Your task to perform on an android device: remove spam from my inbox in the gmail app Image 0: 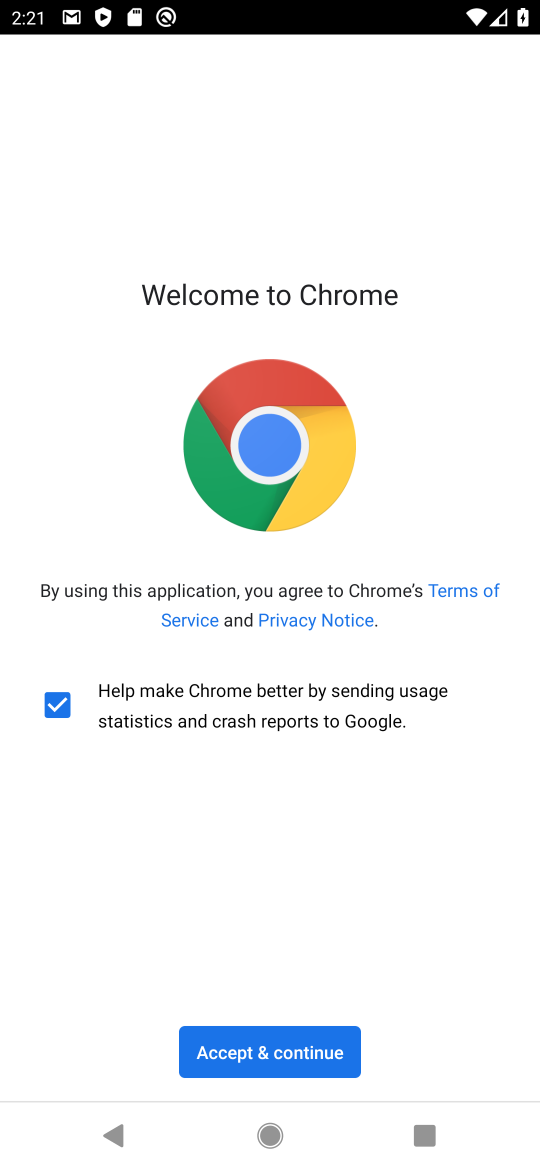
Step 0: press home button
Your task to perform on an android device: remove spam from my inbox in the gmail app Image 1: 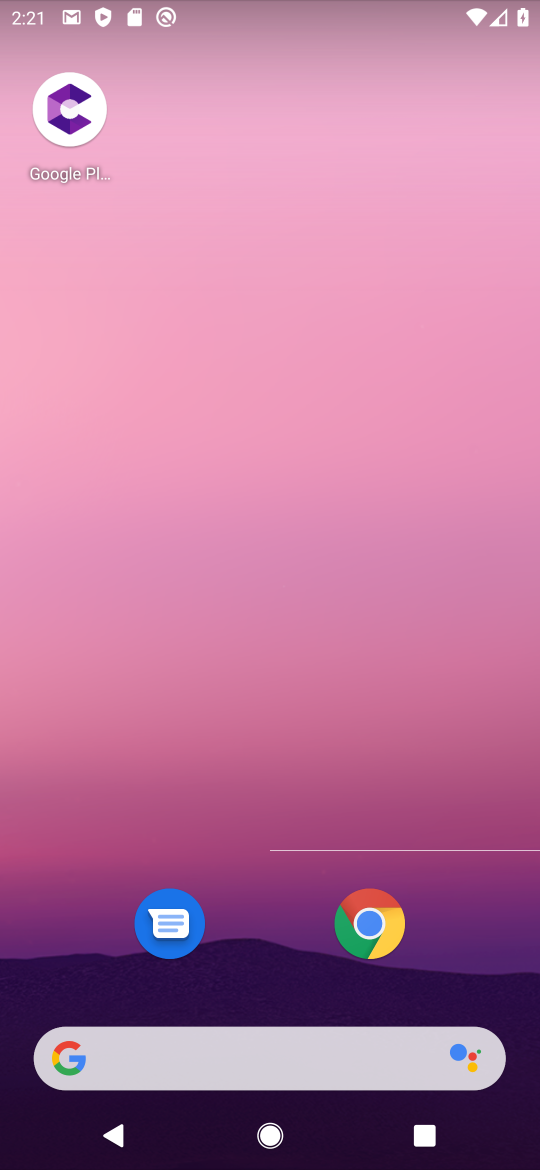
Step 1: drag from (196, 896) to (152, 160)
Your task to perform on an android device: remove spam from my inbox in the gmail app Image 2: 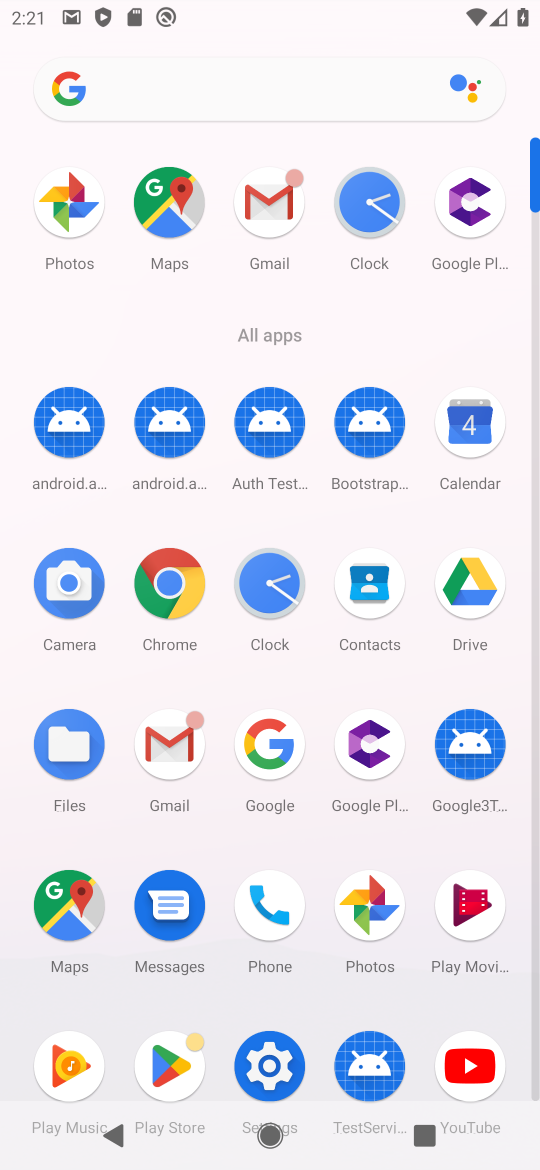
Step 2: click (285, 195)
Your task to perform on an android device: remove spam from my inbox in the gmail app Image 3: 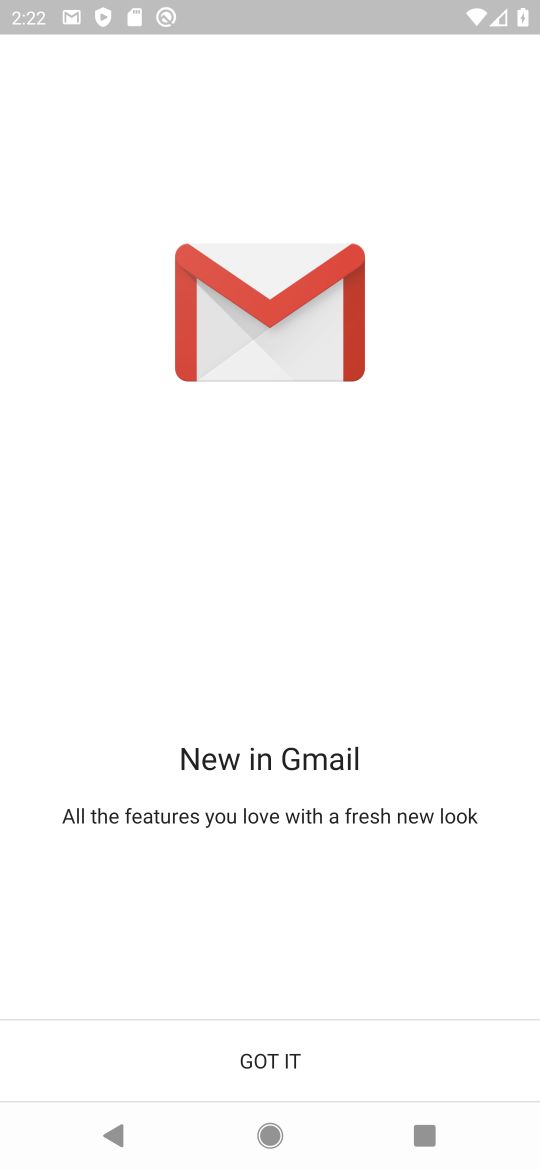
Step 3: click (202, 1092)
Your task to perform on an android device: remove spam from my inbox in the gmail app Image 4: 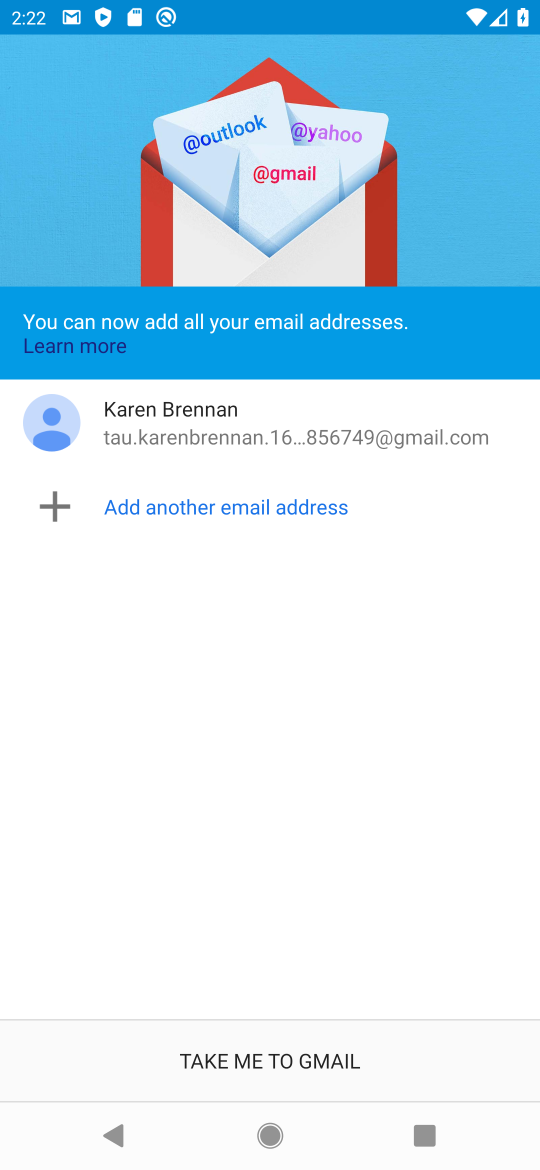
Step 4: click (289, 1054)
Your task to perform on an android device: remove spam from my inbox in the gmail app Image 5: 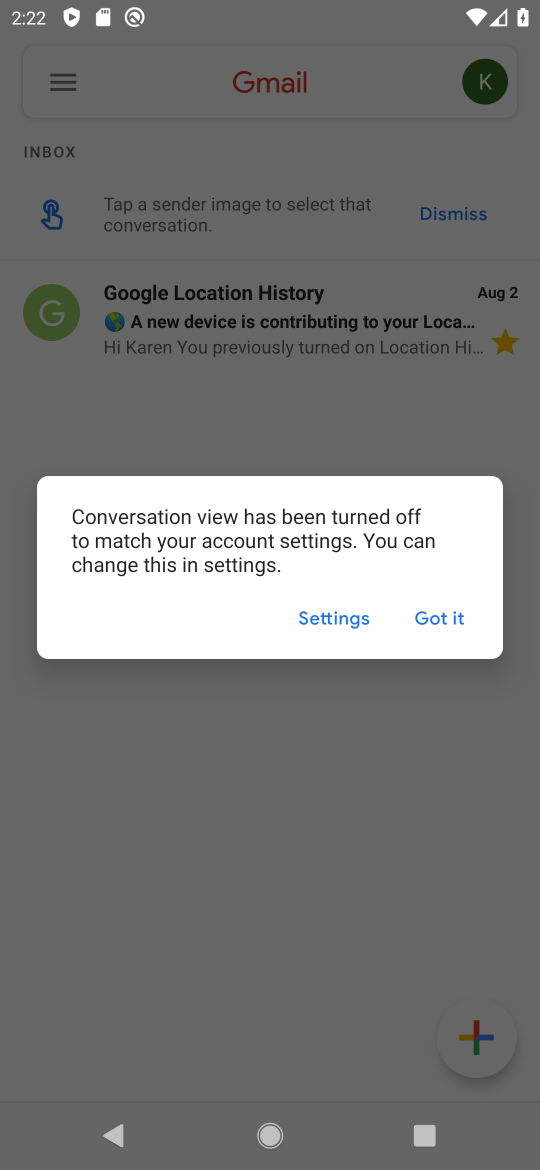
Step 5: click (450, 611)
Your task to perform on an android device: remove spam from my inbox in the gmail app Image 6: 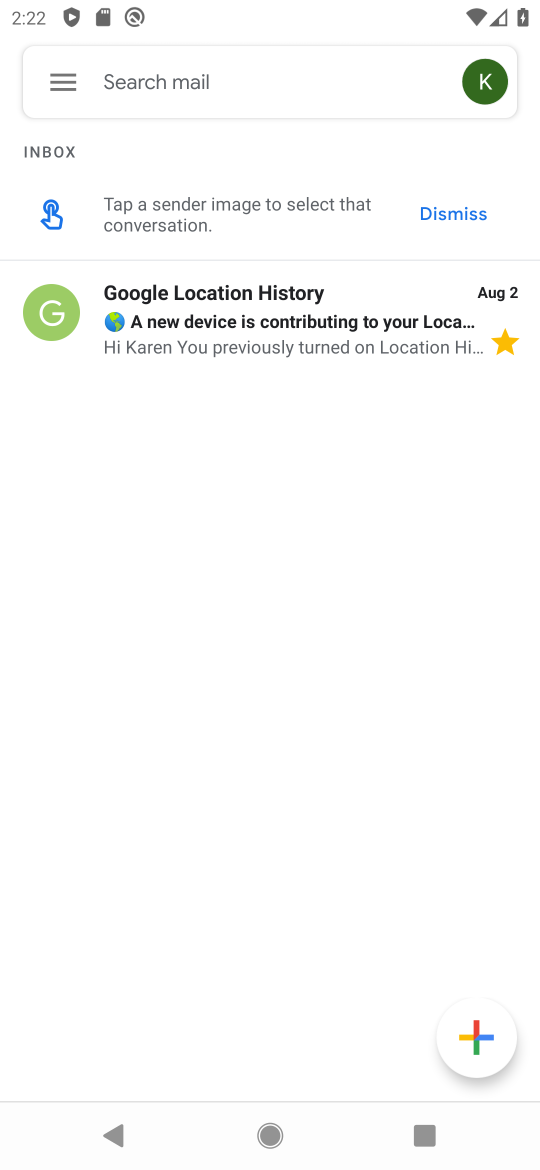
Step 6: click (46, 101)
Your task to perform on an android device: remove spam from my inbox in the gmail app Image 7: 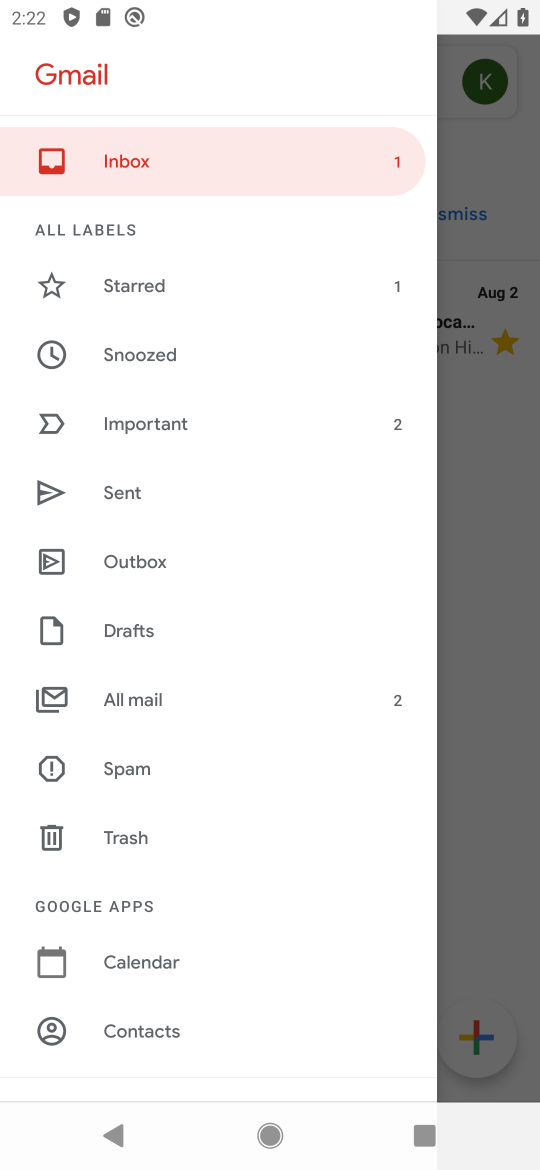
Step 7: click (170, 770)
Your task to perform on an android device: remove spam from my inbox in the gmail app Image 8: 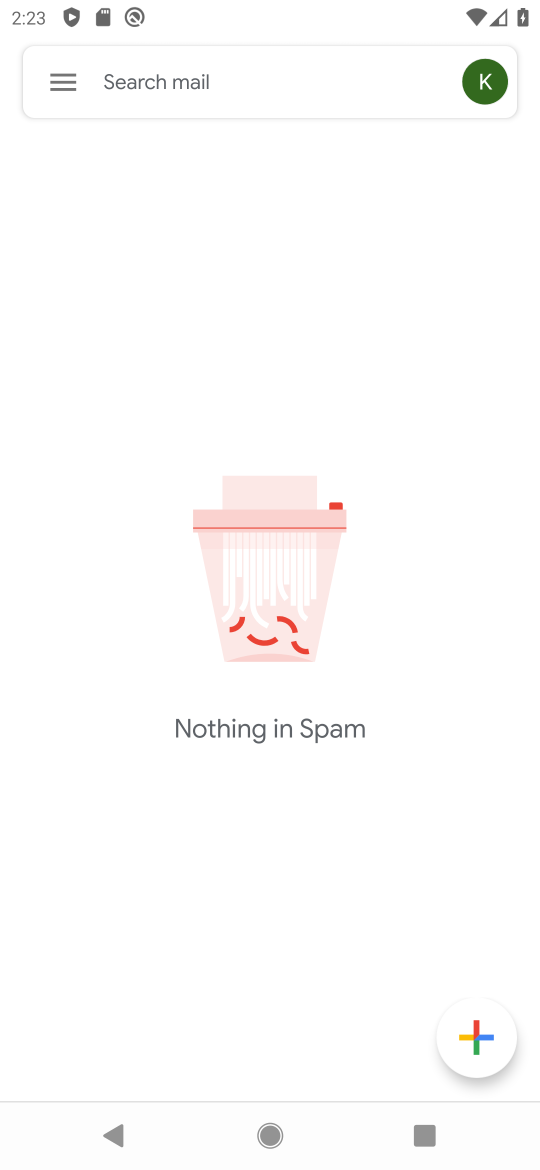
Step 8: task complete